Your task to perform on an android device: open app "VLC for Android" (install if not already installed), go to login, and select forgot password Image 0: 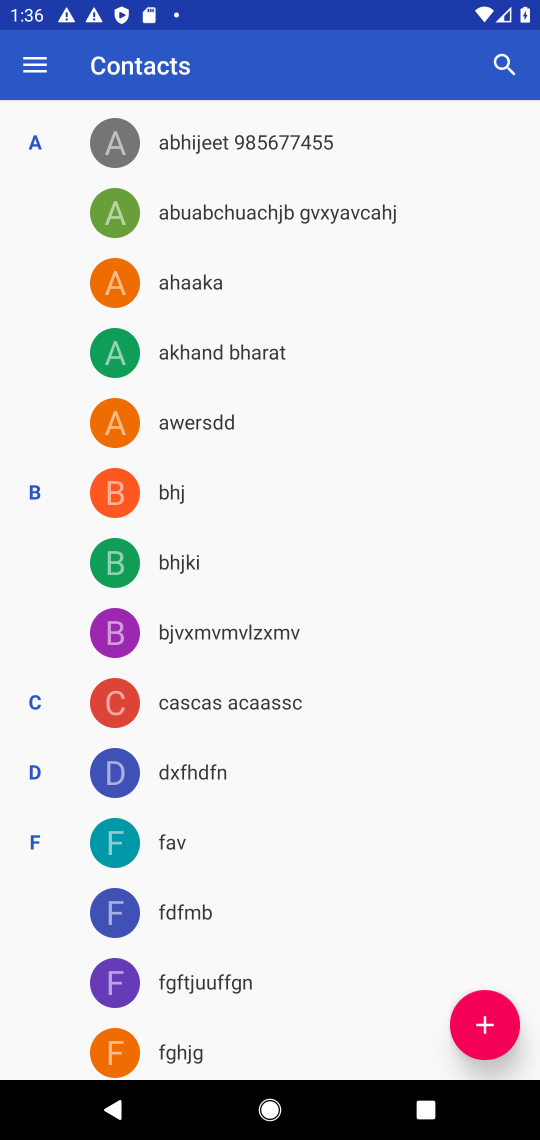
Step 0: press home button
Your task to perform on an android device: open app "VLC for Android" (install if not already installed), go to login, and select forgot password Image 1: 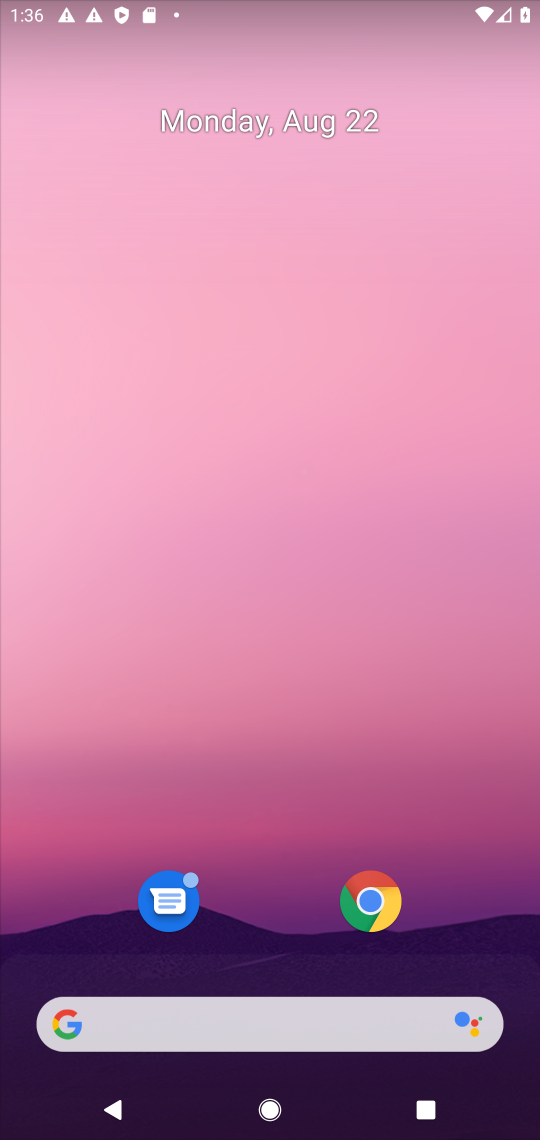
Step 1: drag from (494, 869) to (425, 160)
Your task to perform on an android device: open app "VLC for Android" (install if not already installed), go to login, and select forgot password Image 2: 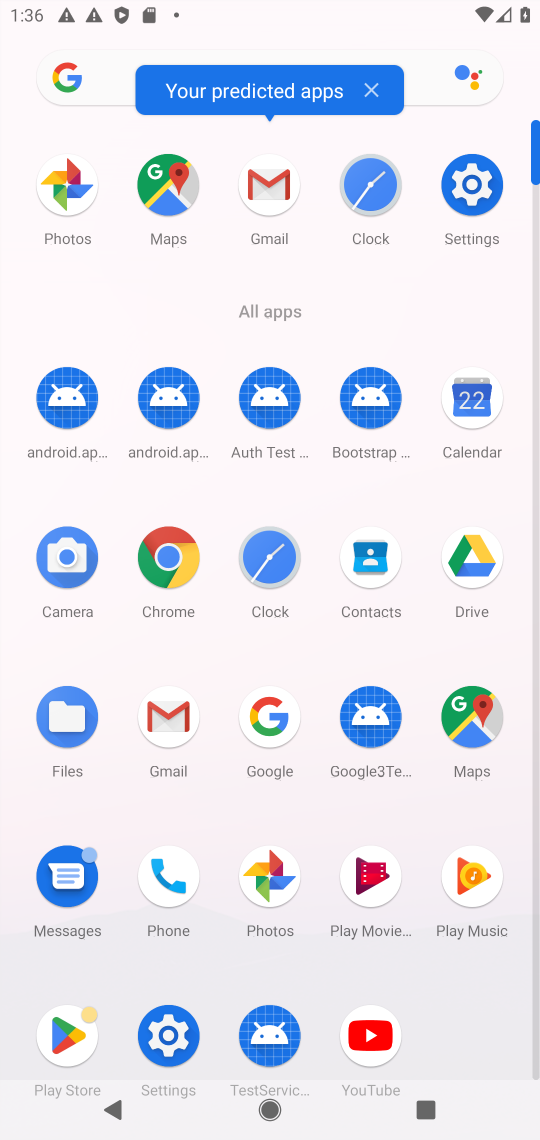
Step 2: click (63, 1033)
Your task to perform on an android device: open app "VLC for Android" (install if not already installed), go to login, and select forgot password Image 3: 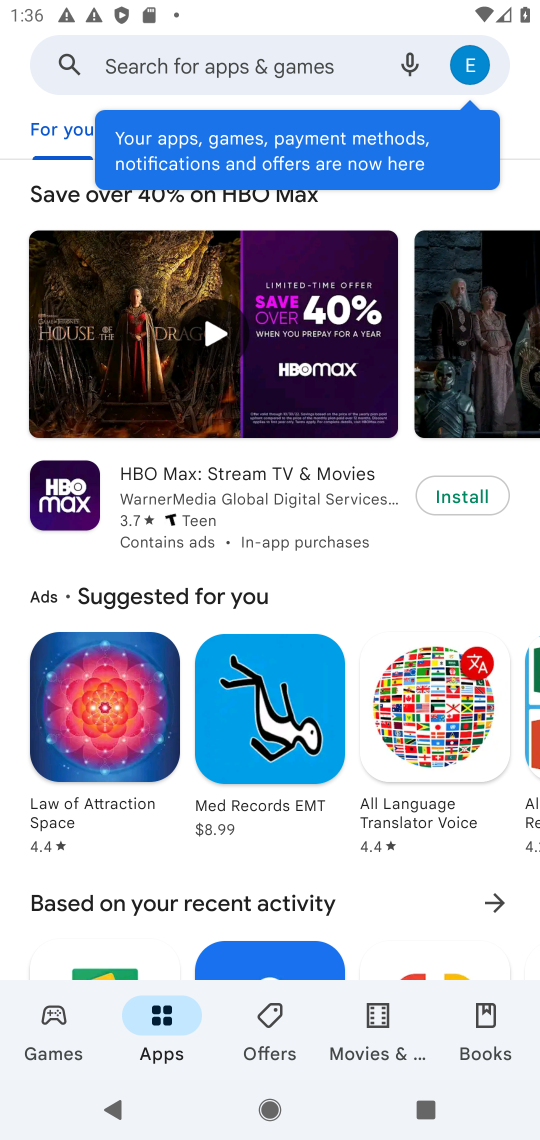
Step 3: click (194, 72)
Your task to perform on an android device: open app "VLC for Android" (install if not already installed), go to login, and select forgot password Image 4: 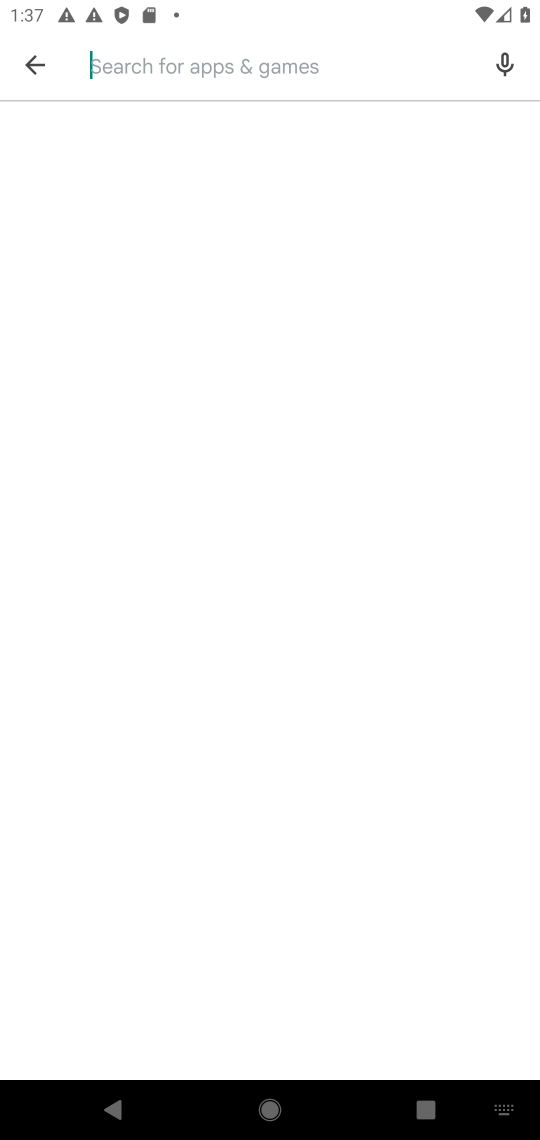
Step 4: type "VLC "
Your task to perform on an android device: open app "VLC for Android" (install if not already installed), go to login, and select forgot password Image 5: 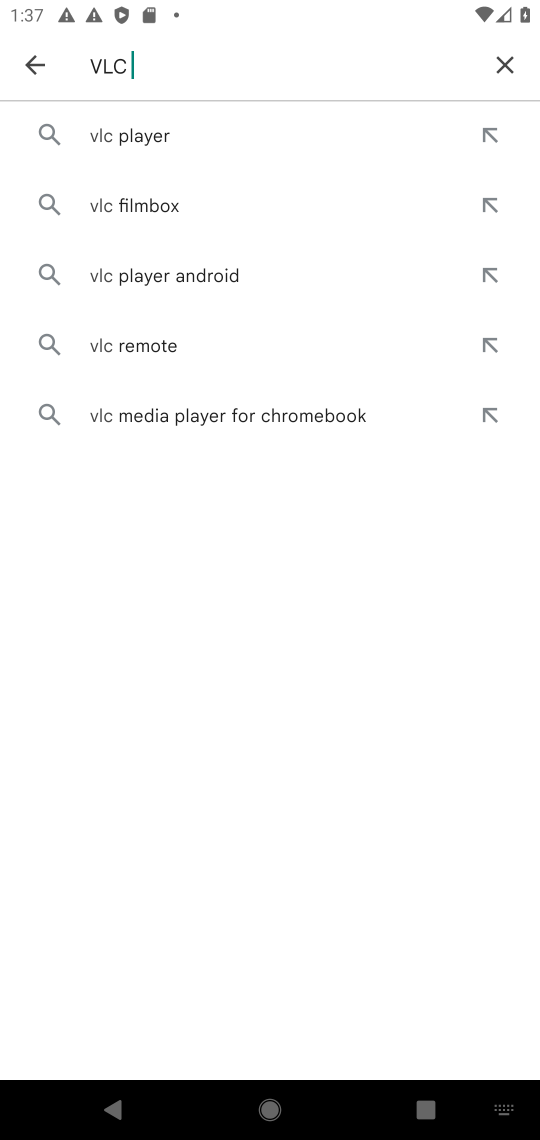
Step 5: type " for Android"
Your task to perform on an android device: open app "VLC for Android" (install if not already installed), go to login, and select forgot password Image 6: 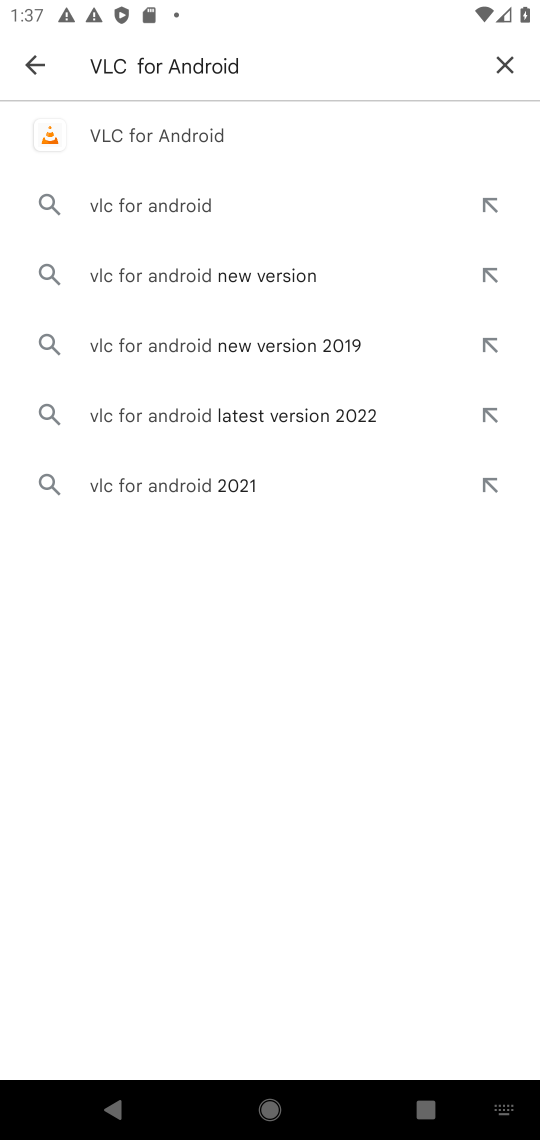
Step 6: click (158, 127)
Your task to perform on an android device: open app "VLC for Android" (install if not already installed), go to login, and select forgot password Image 7: 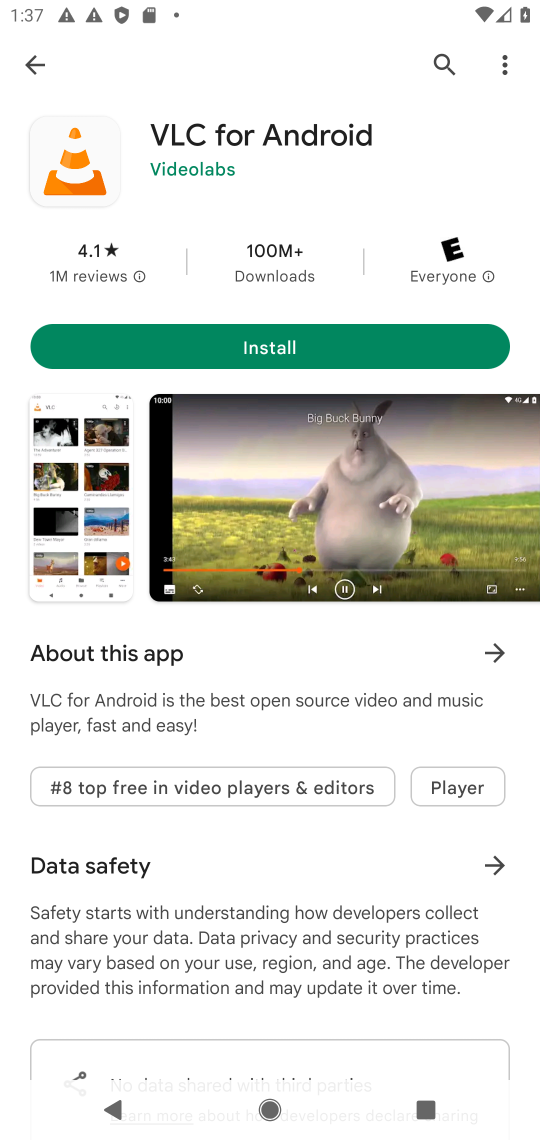
Step 7: click (269, 353)
Your task to perform on an android device: open app "VLC for Android" (install if not already installed), go to login, and select forgot password Image 8: 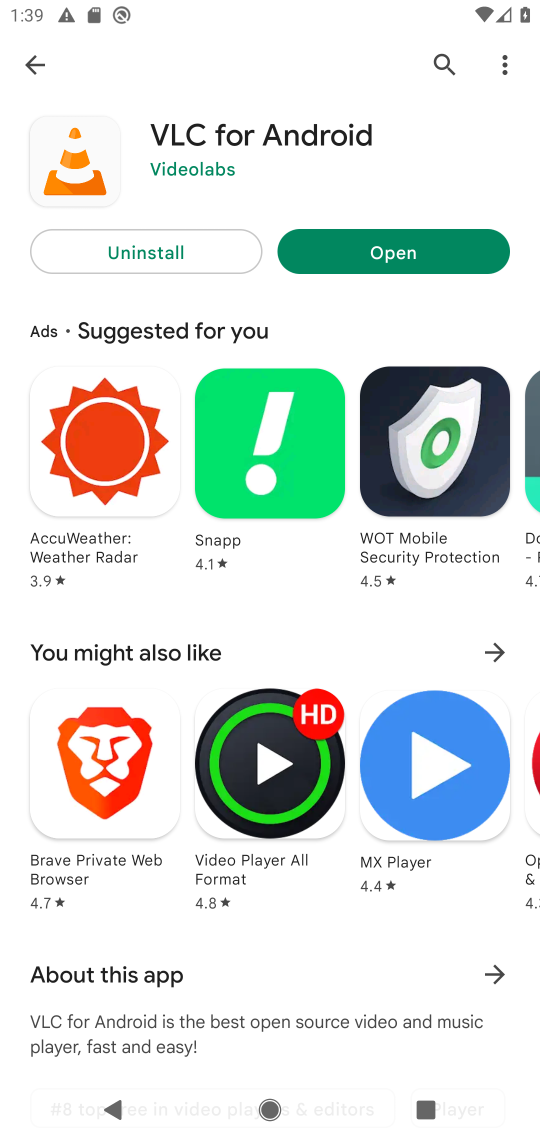
Step 8: click (390, 245)
Your task to perform on an android device: open app "VLC for Android" (install if not already installed), go to login, and select forgot password Image 9: 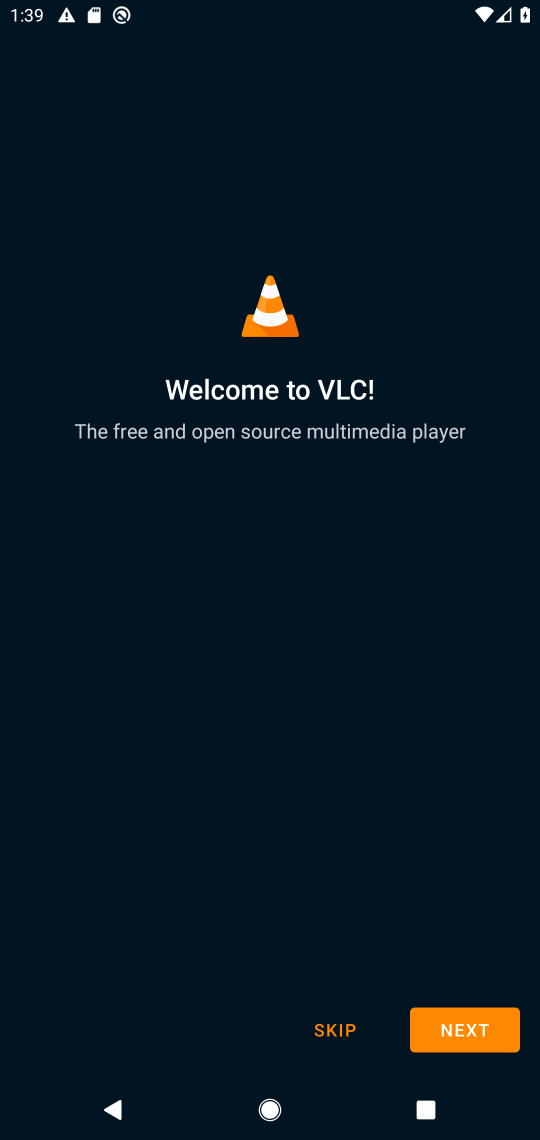
Step 9: click (326, 1029)
Your task to perform on an android device: open app "VLC for Android" (install if not already installed), go to login, and select forgot password Image 10: 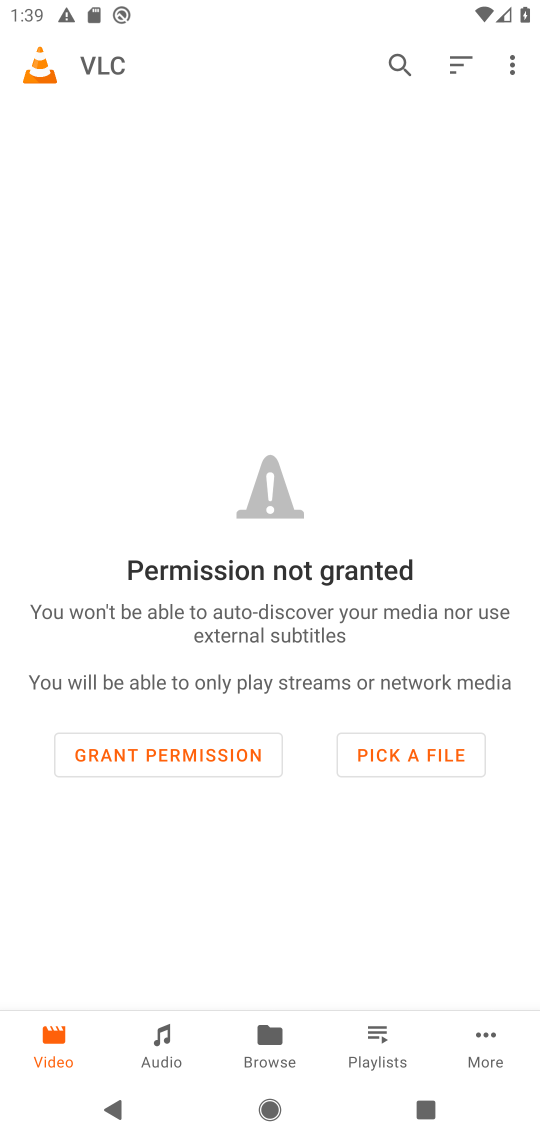
Step 10: click (480, 1025)
Your task to perform on an android device: open app "VLC for Android" (install if not already installed), go to login, and select forgot password Image 11: 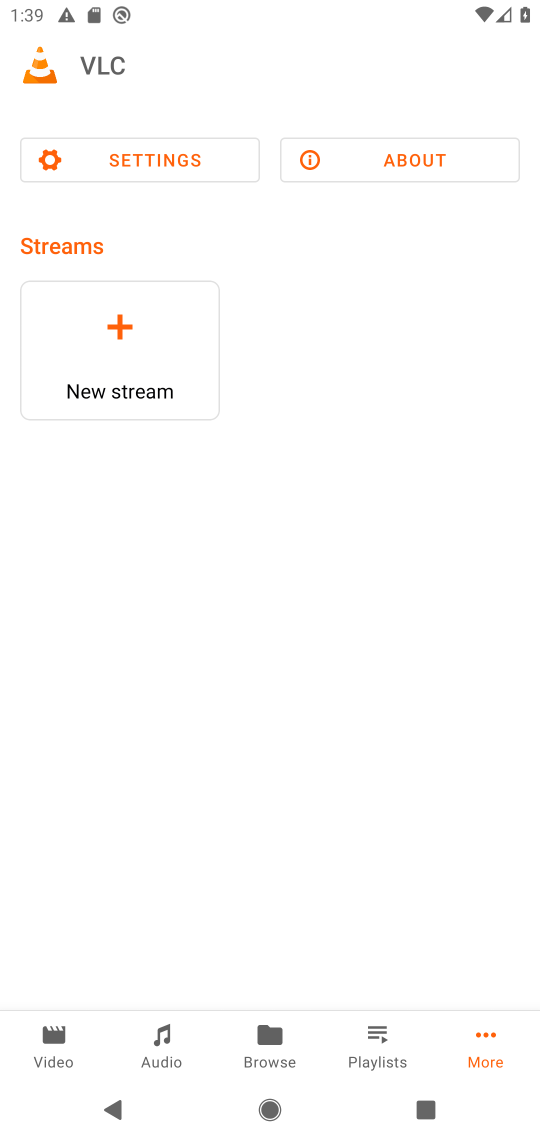
Step 11: click (118, 165)
Your task to perform on an android device: open app "VLC for Android" (install if not already installed), go to login, and select forgot password Image 12: 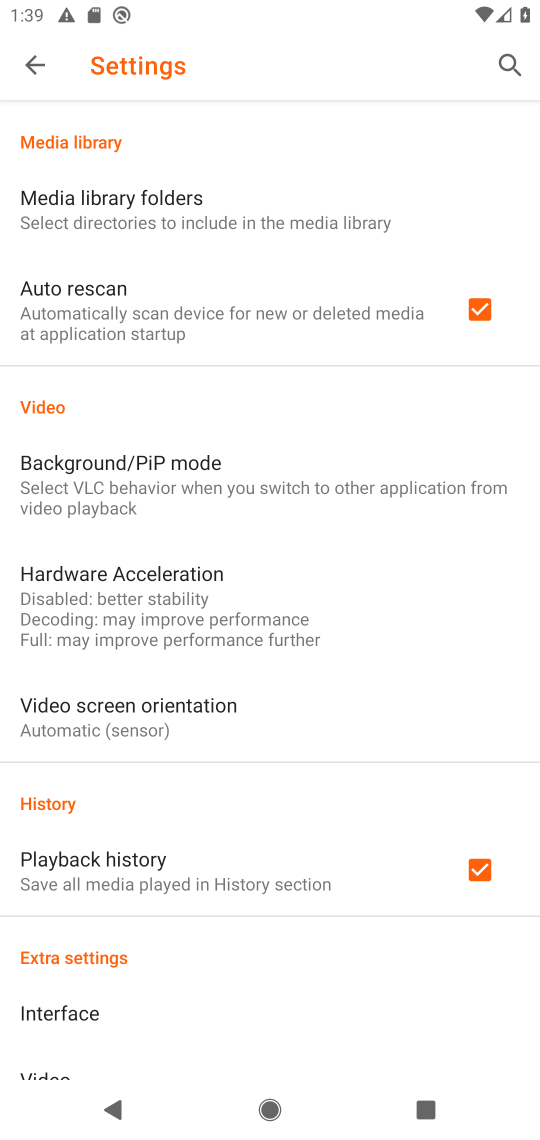
Step 12: task complete